Your task to perform on an android device: see sites visited before in the chrome app Image 0: 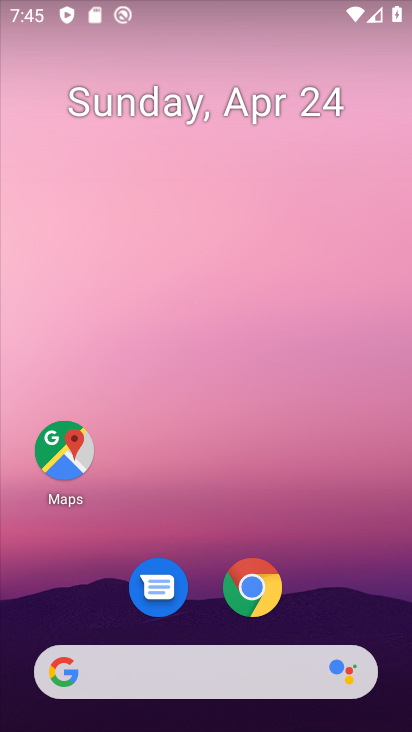
Step 0: click (349, 162)
Your task to perform on an android device: see sites visited before in the chrome app Image 1: 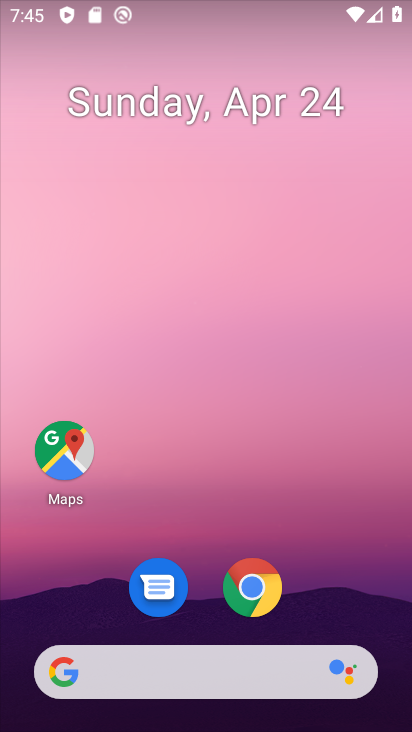
Step 1: drag from (344, 594) to (375, 208)
Your task to perform on an android device: see sites visited before in the chrome app Image 2: 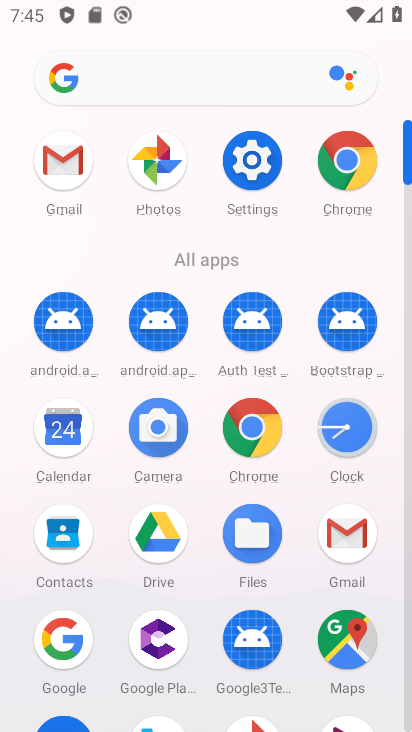
Step 2: click (253, 409)
Your task to perform on an android device: see sites visited before in the chrome app Image 3: 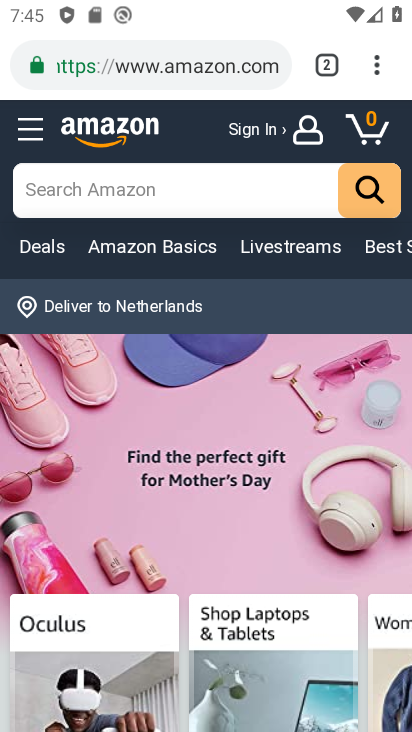
Step 3: click (378, 72)
Your task to perform on an android device: see sites visited before in the chrome app Image 4: 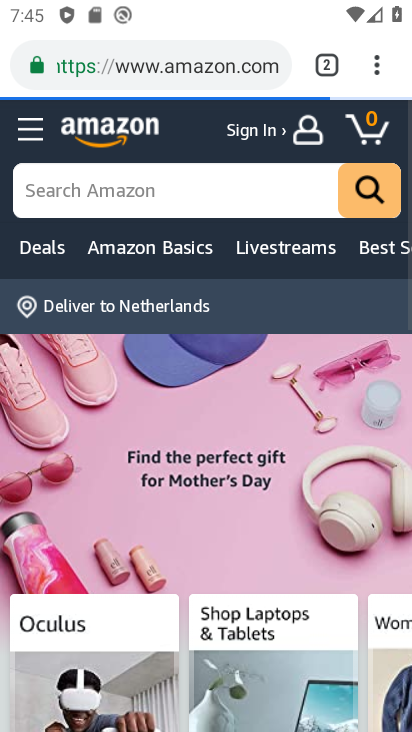
Step 4: task complete